Your task to perform on an android device: Search for pizza restaurants on Maps Image 0: 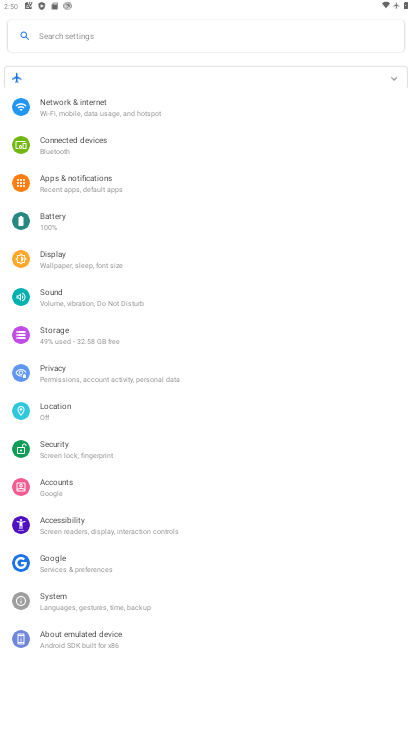
Step 0: drag from (149, 673) to (178, 421)
Your task to perform on an android device: Search for pizza restaurants on Maps Image 1: 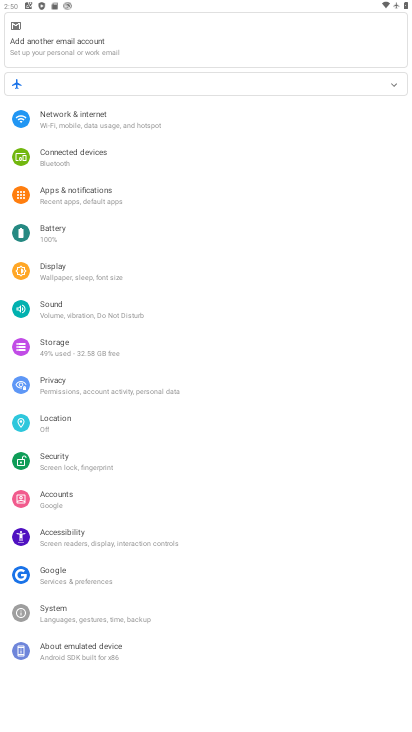
Step 1: press home button
Your task to perform on an android device: Search for pizza restaurants on Maps Image 2: 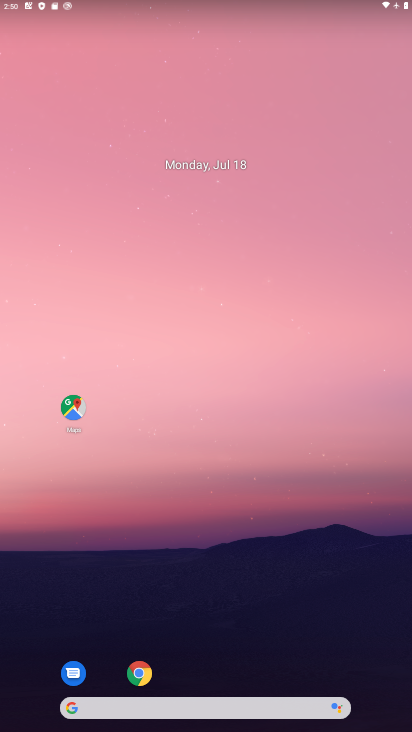
Step 2: drag from (247, 649) to (246, 262)
Your task to perform on an android device: Search for pizza restaurants on Maps Image 3: 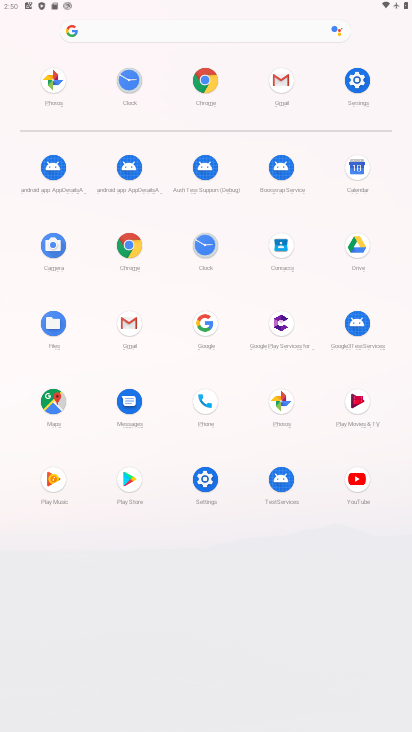
Step 3: click (50, 396)
Your task to perform on an android device: Search for pizza restaurants on Maps Image 4: 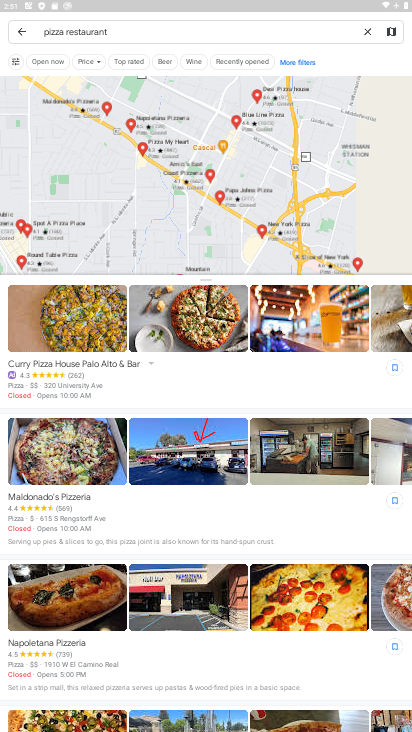
Step 4: task complete